Your task to perform on an android device: What is the recent news? Image 0: 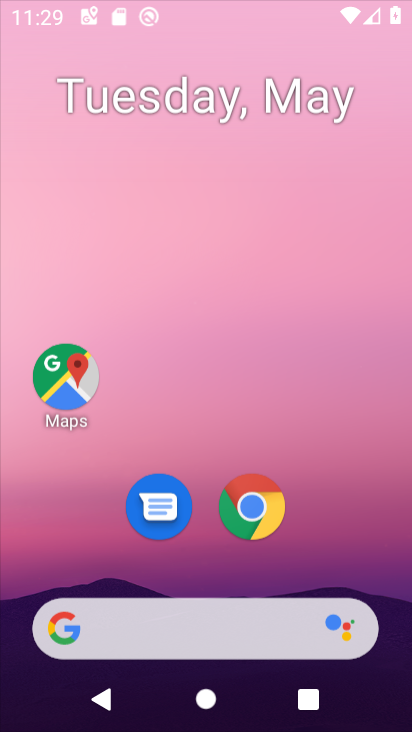
Step 0: press back button
Your task to perform on an android device: What is the recent news? Image 1: 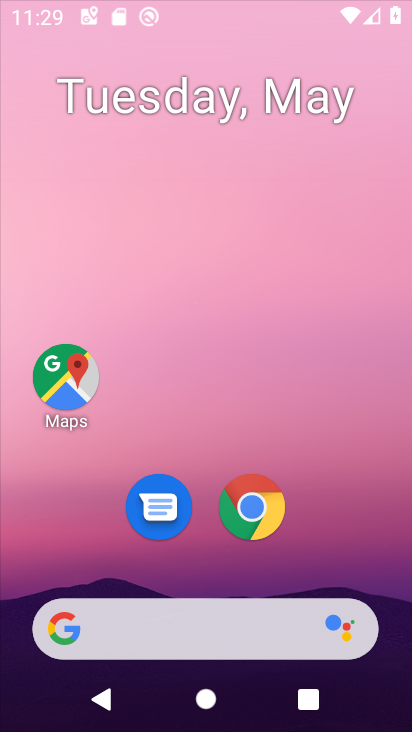
Step 1: task complete